Your task to perform on an android device: toggle location history Image 0: 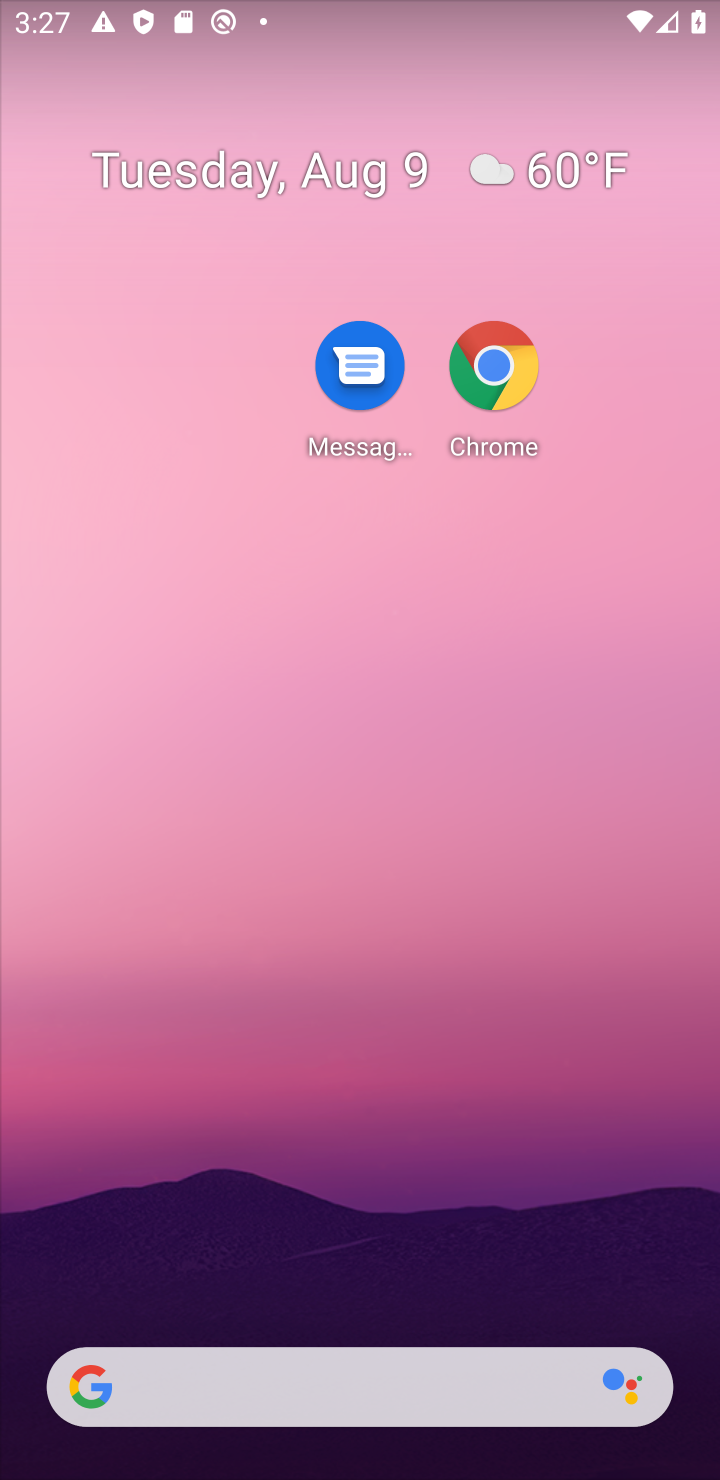
Step 0: drag from (458, 1305) to (468, 480)
Your task to perform on an android device: toggle location history Image 1: 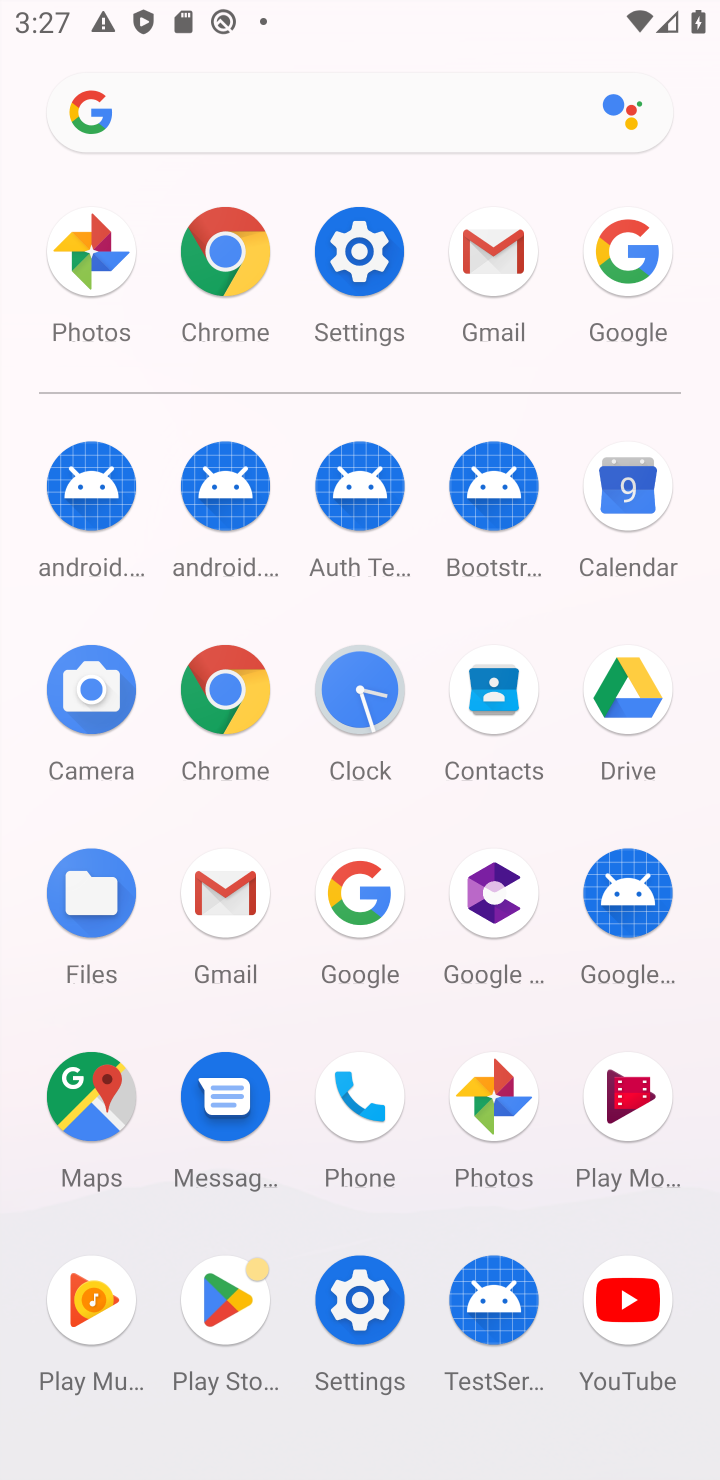
Step 1: click (359, 269)
Your task to perform on an android device: toggle location history Image 2: 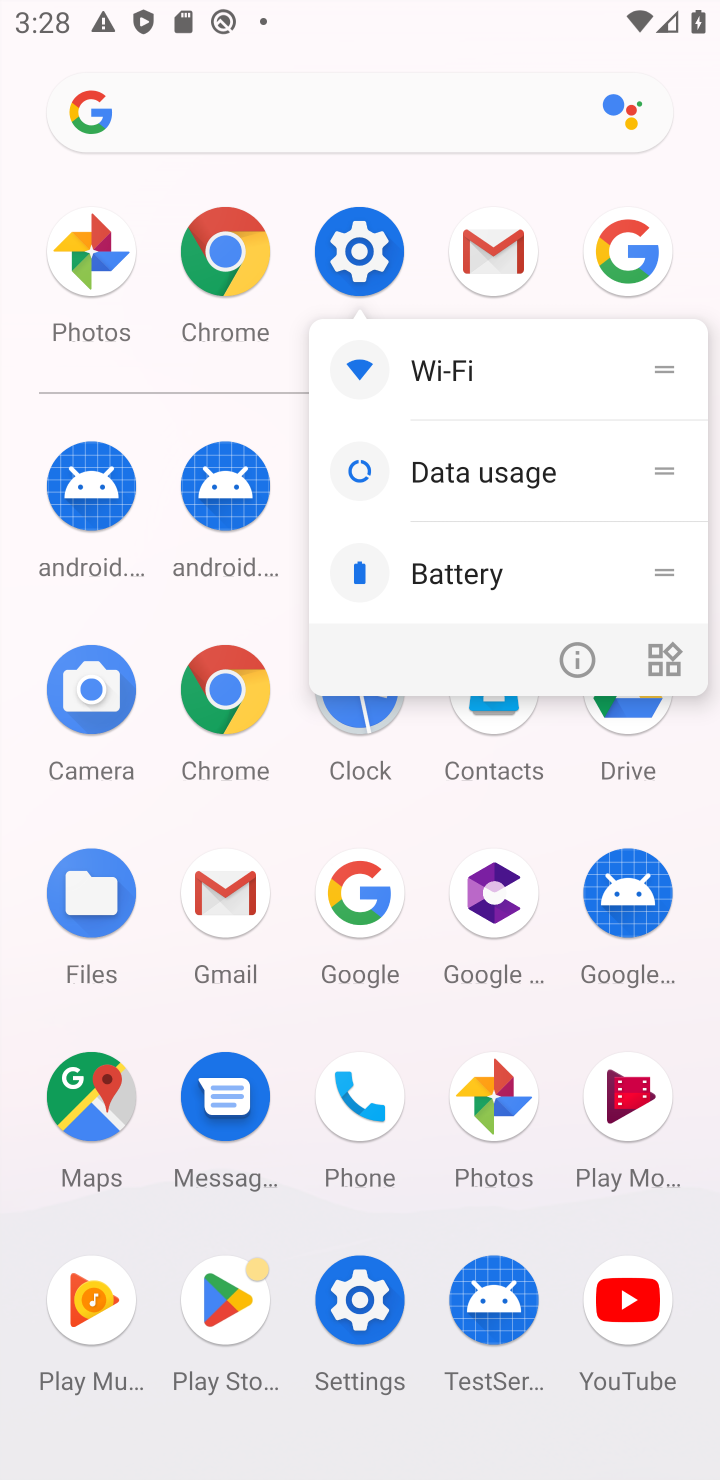
Step 2: click (359, 269)
Your task to perform on an android device: toggle location history Image 3: 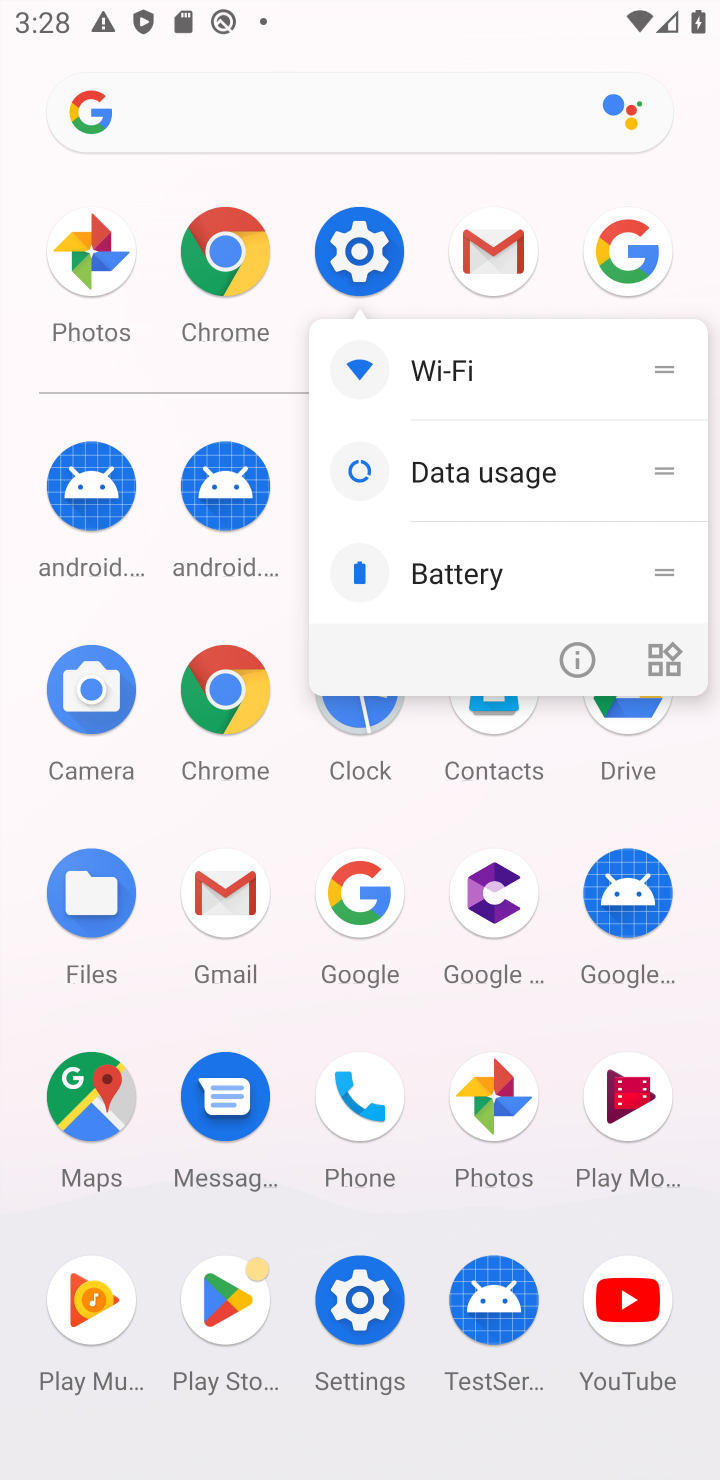
Step 3: click (359, 234)
Your task to perform on an android device: toggle location history Image 4: 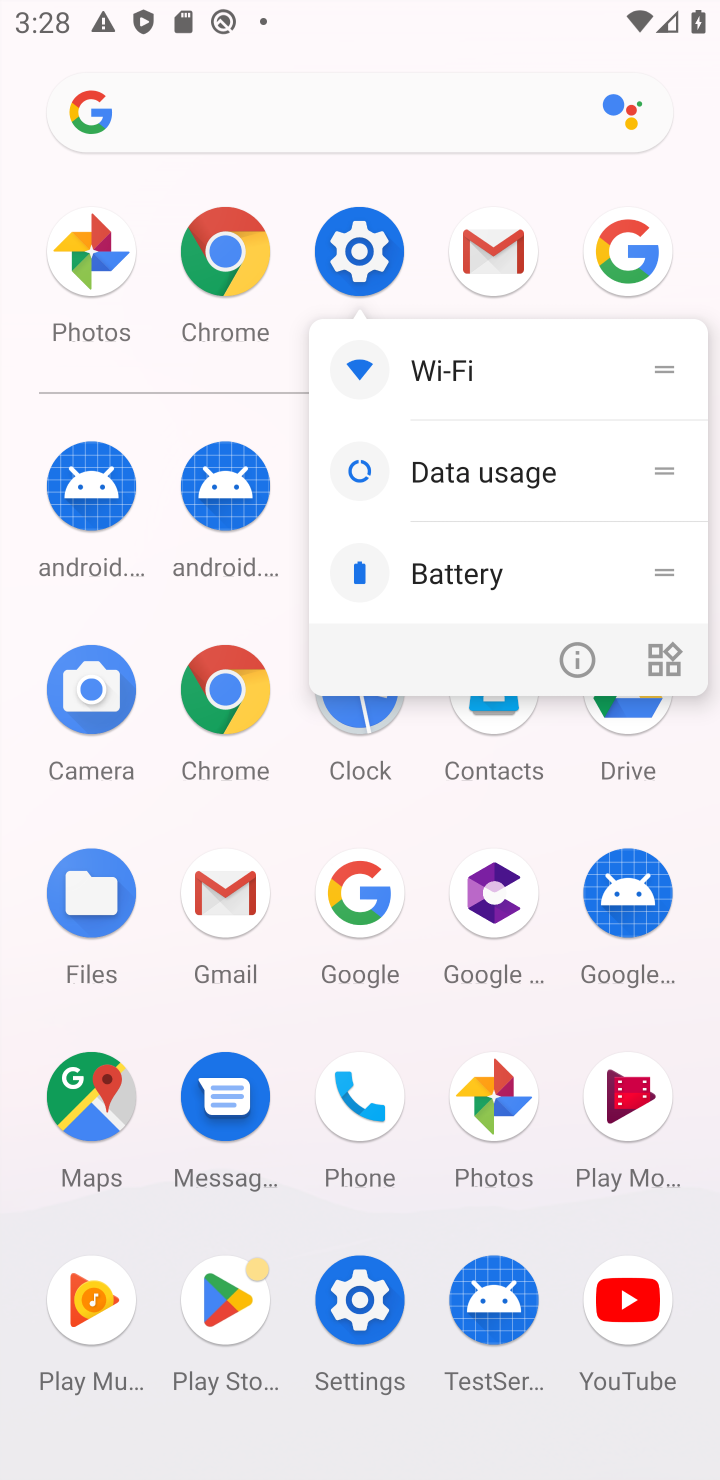
Step 4: click (359, 234)
Your task to perform on an android device: toggle location history Image 5: 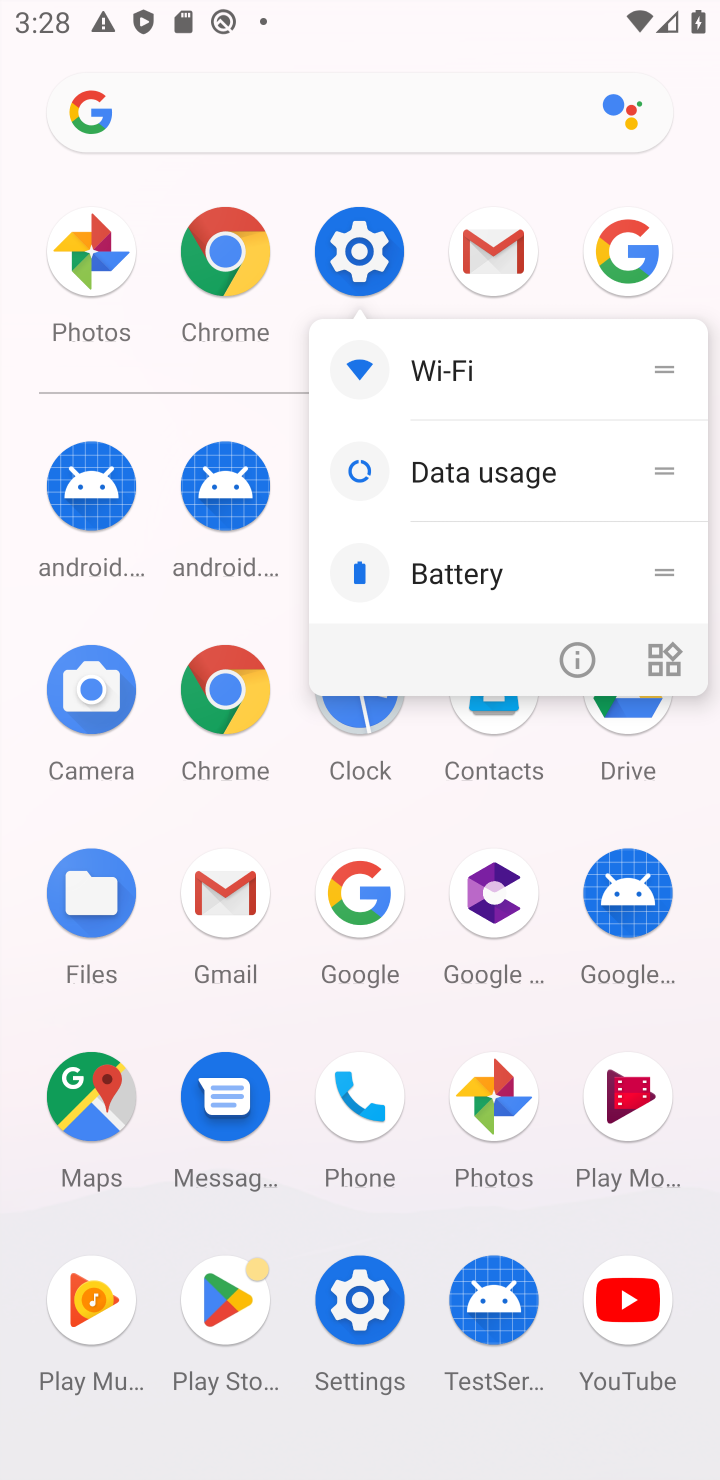
Step 5: click (359, 234)
Your task to perform on an android device: toggle location history Image 6: 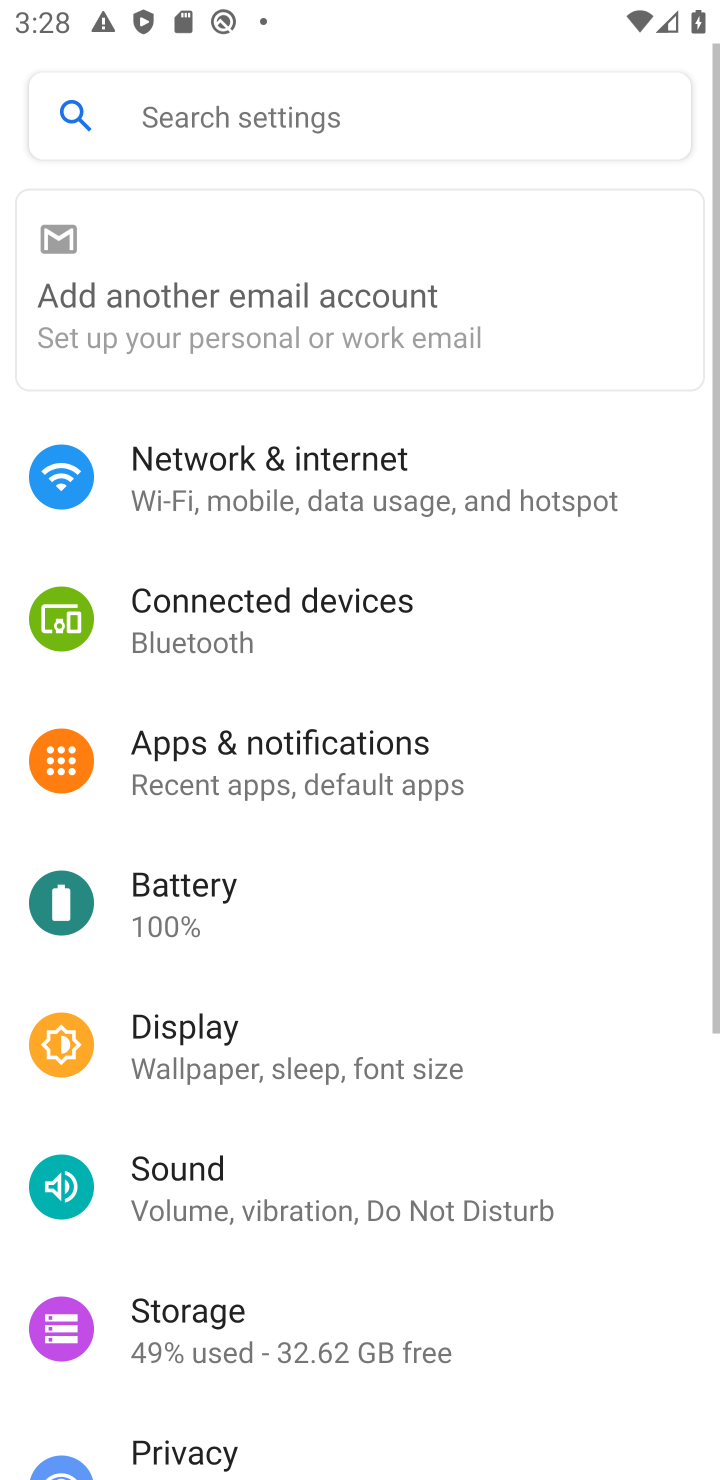
Step 6: click (359, 234)
Your task to perform on an android device: toggle location history Image 7: 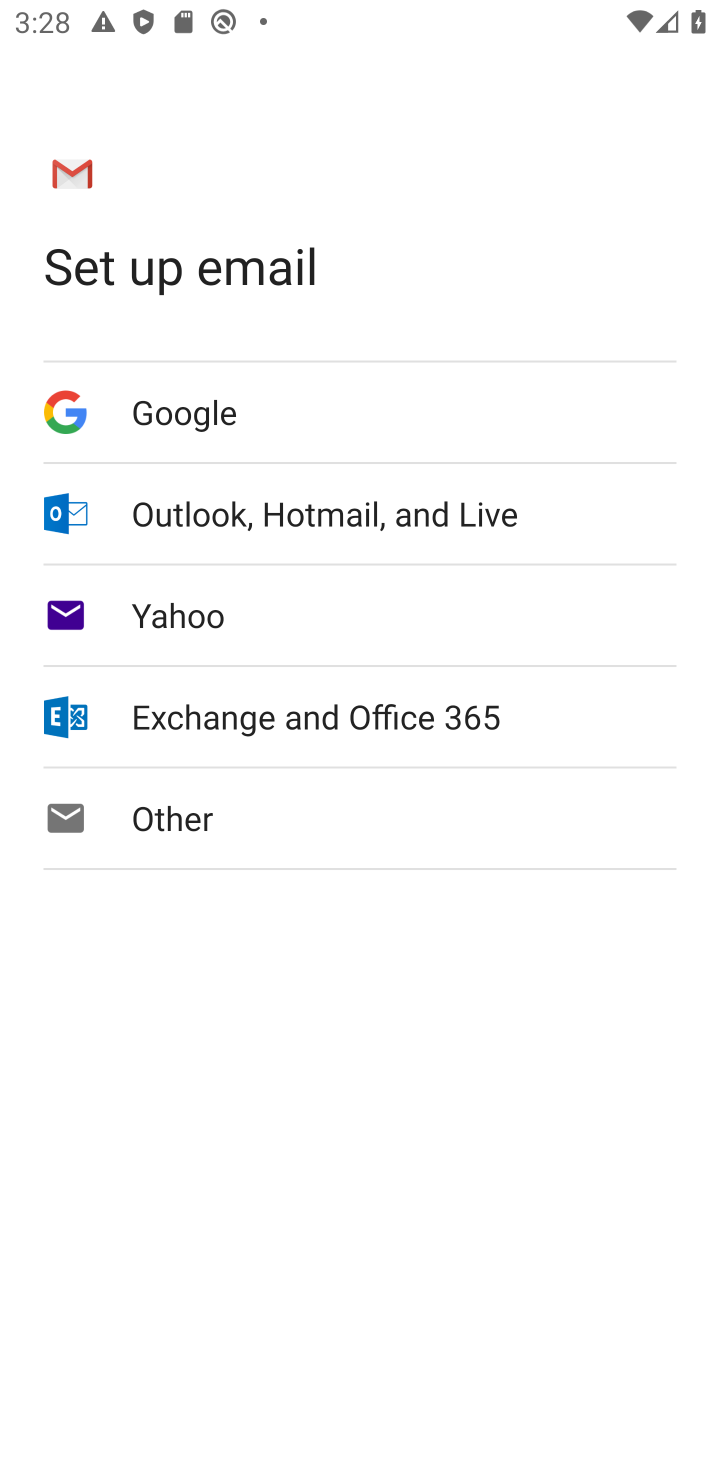
Step 7: press back button
Your task to perform on an android device: toggle location history Image 8: 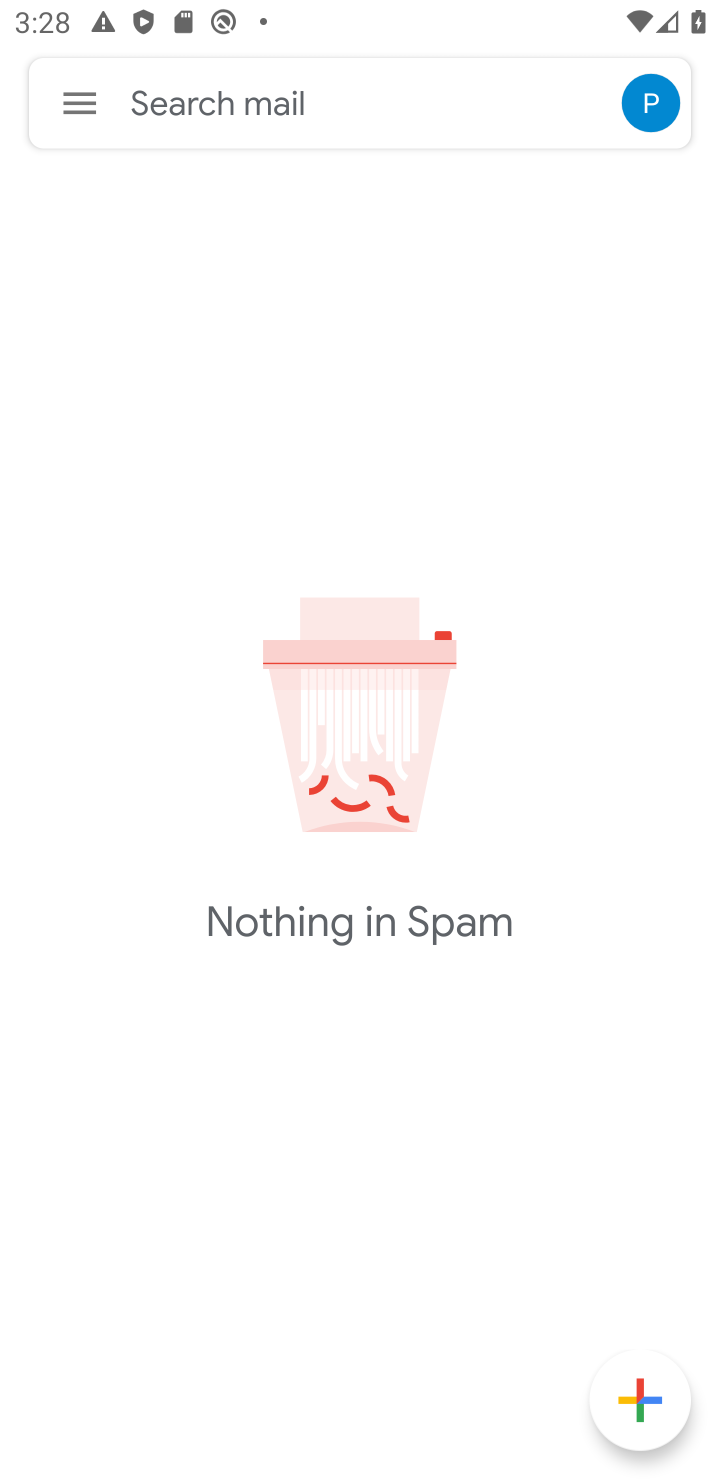
Step 8: click (70, 85)
Your task to perform on an android device: toggle location history Image 9: 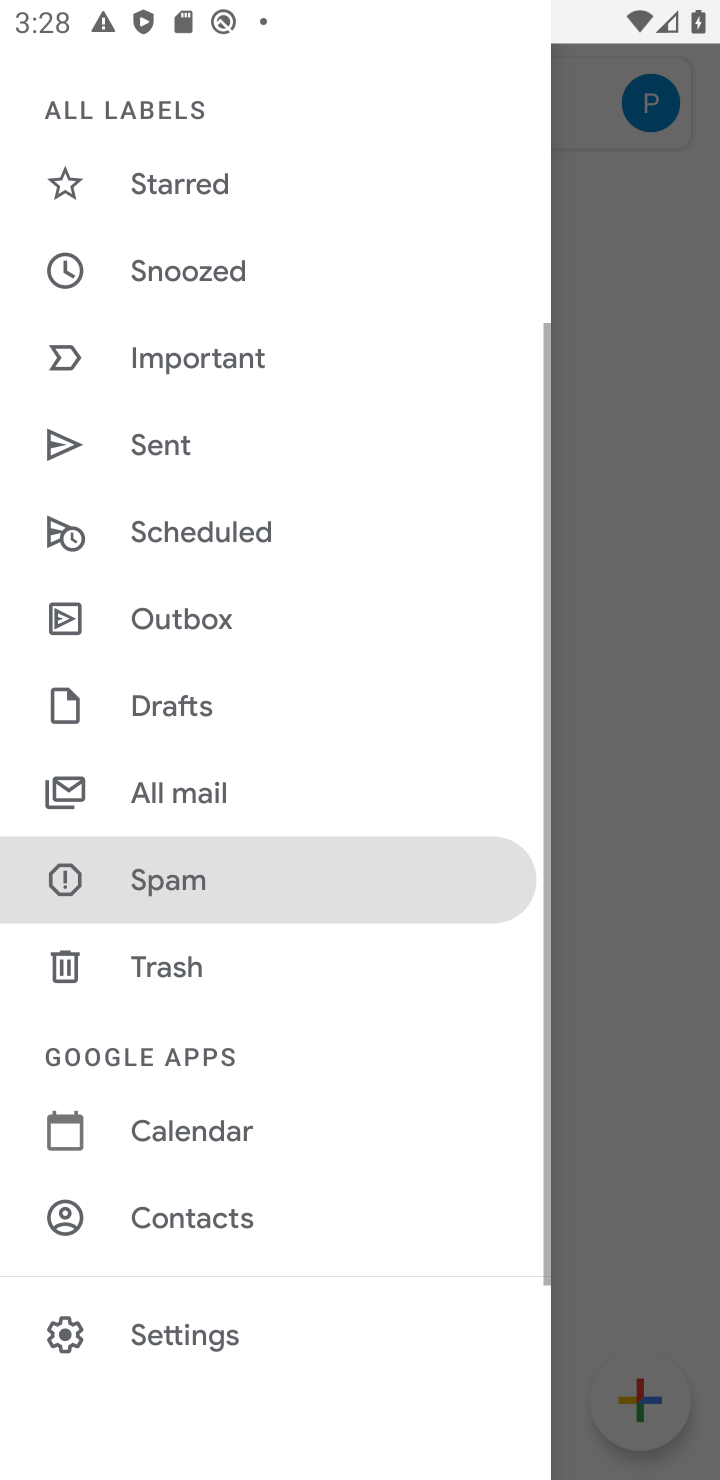
Step 9: press home button
Your task to perform on an android device: toggle location history Image 10: 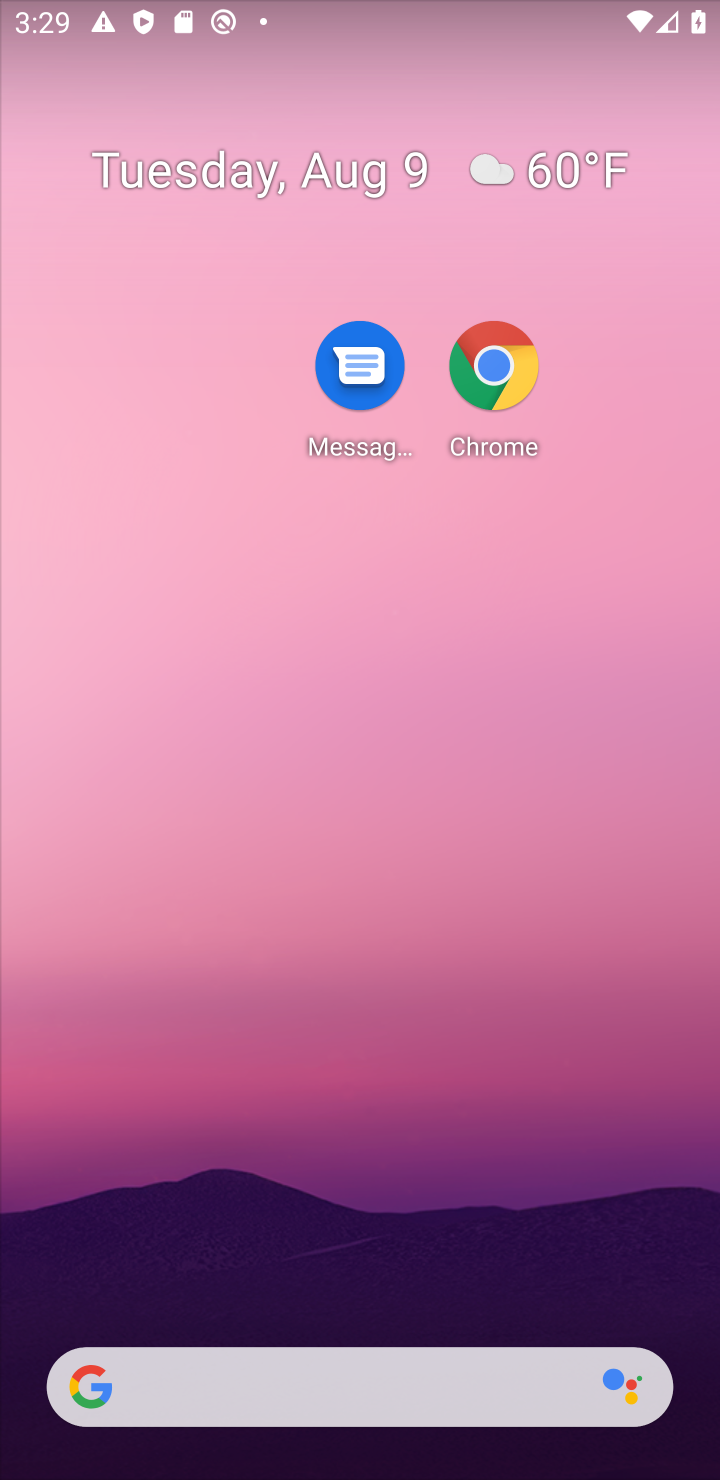
Step 10: drag from (289, 1184) to (374, 390)
Your task to perform on an android device: toggle location history Image 11: 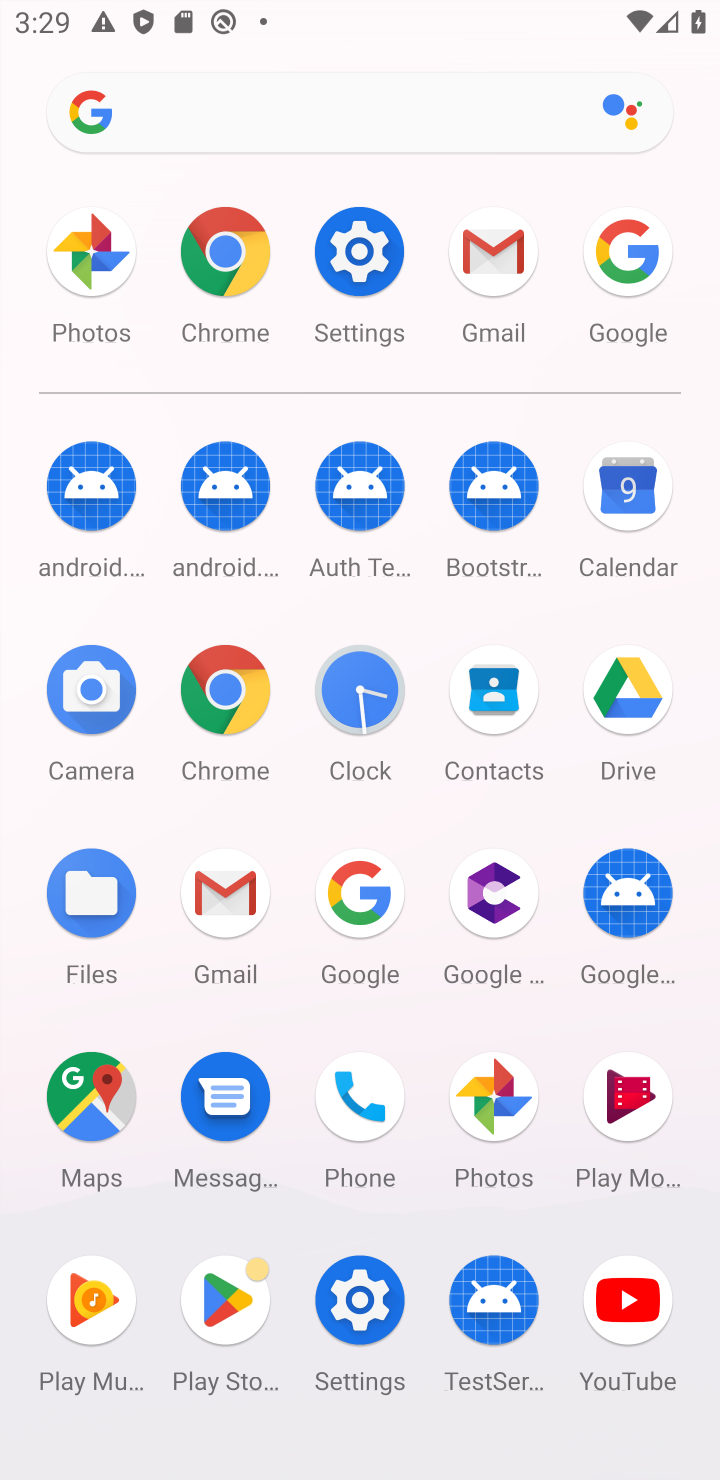
Step 11: click (384, 240)
Your task to perform on an android device: toggle location history Image 12: 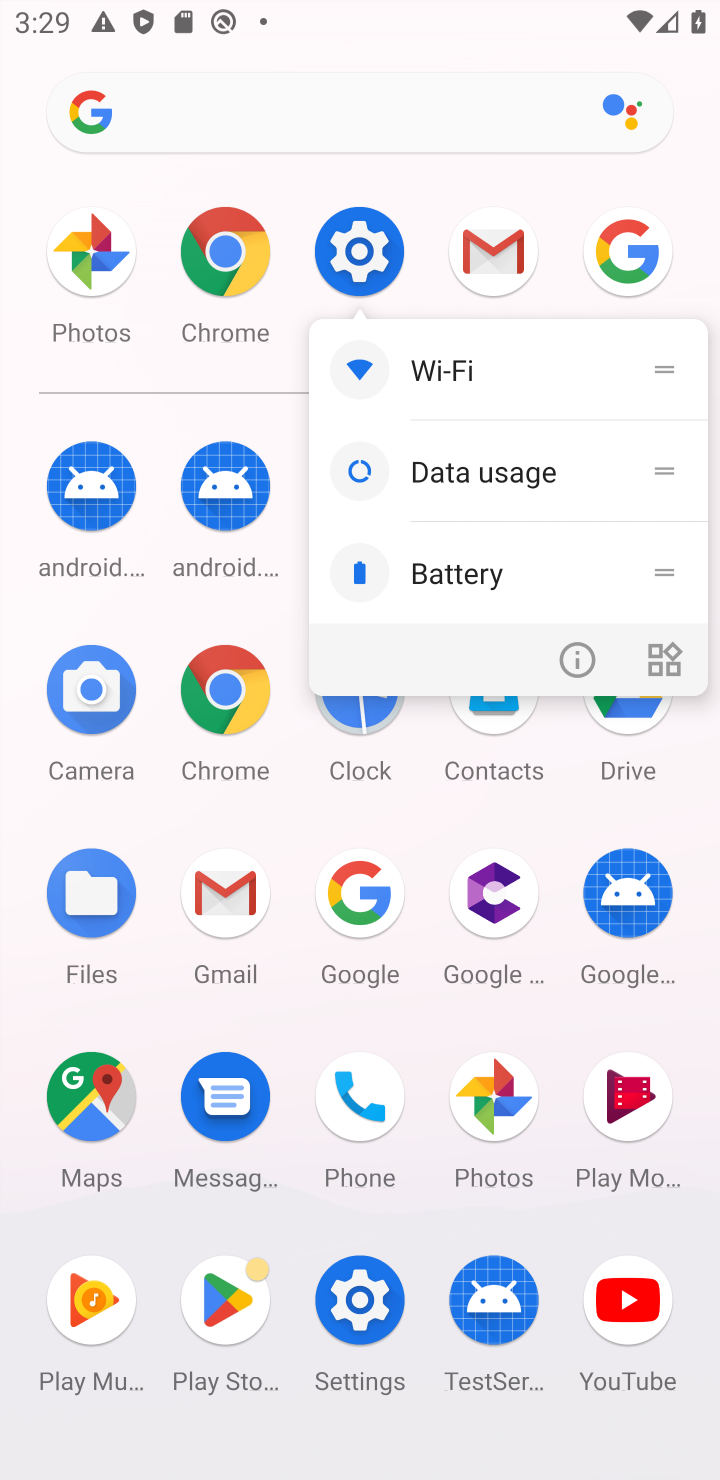
Step 12: click (343, 228)
Your task to perform on an android device: toggle location history Image 13: 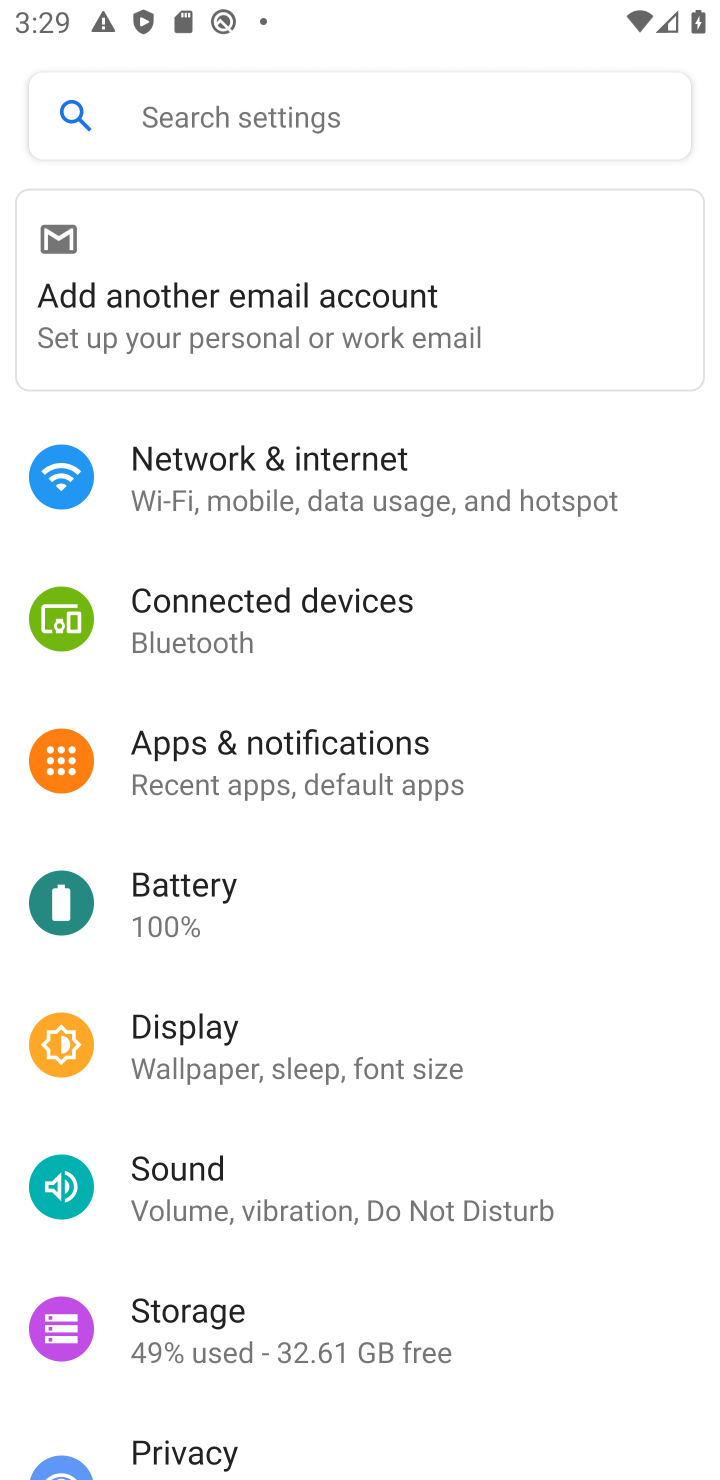
Step 13: drag from (300, 1252) to (438, 458)
Your task to perform on an android device: toggle location history Image 14: 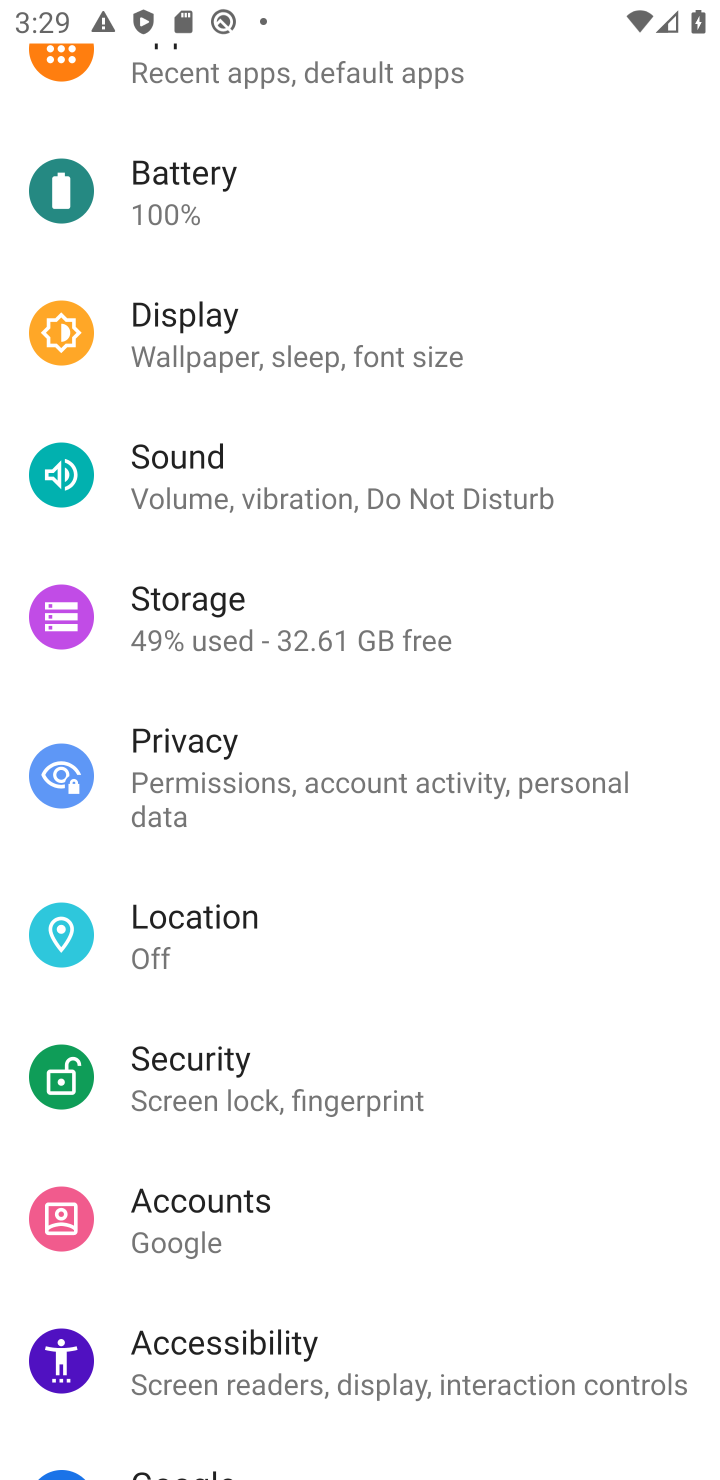
Step 14: click (235, 944)
Your task to perform on an android device: toggle location history Image 15: 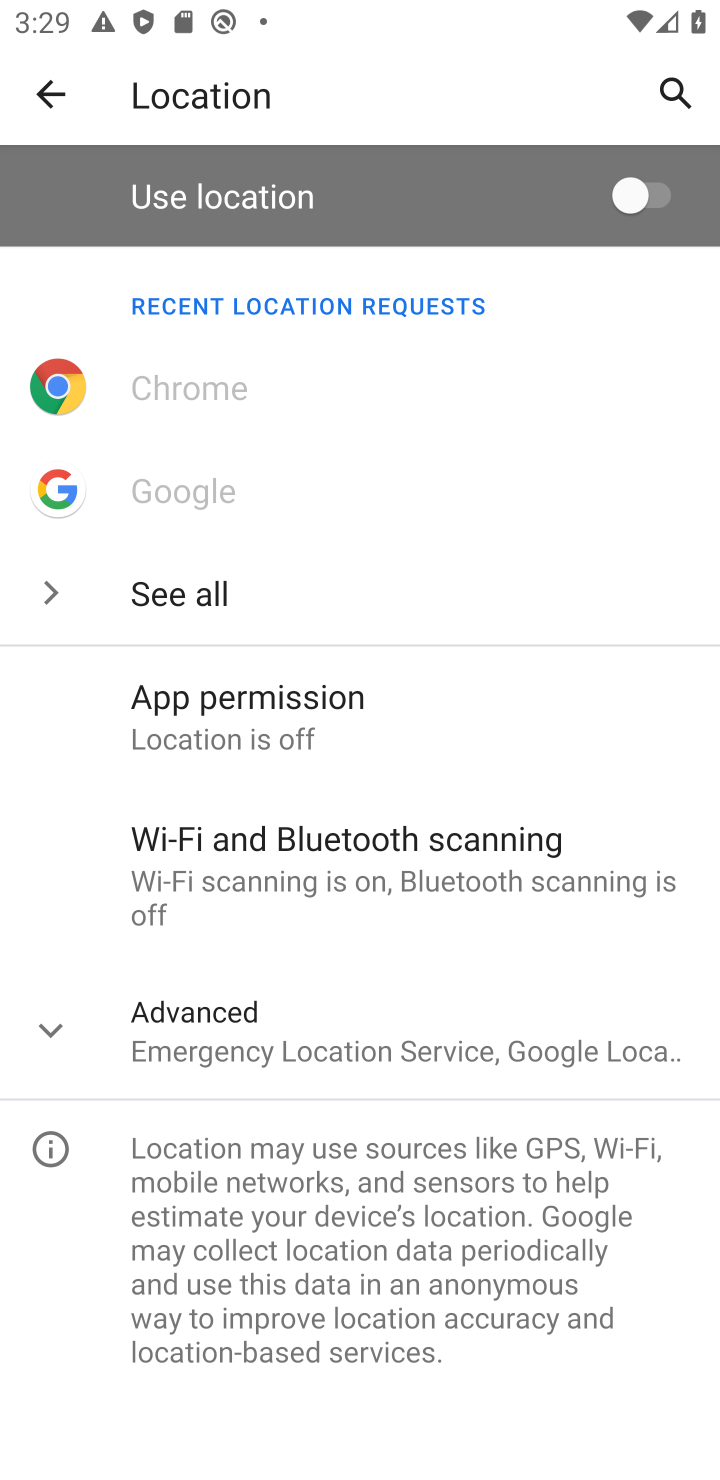
Step 15: click (278, 1015)
Your task to perform on an android device: toggle location history Image 16: 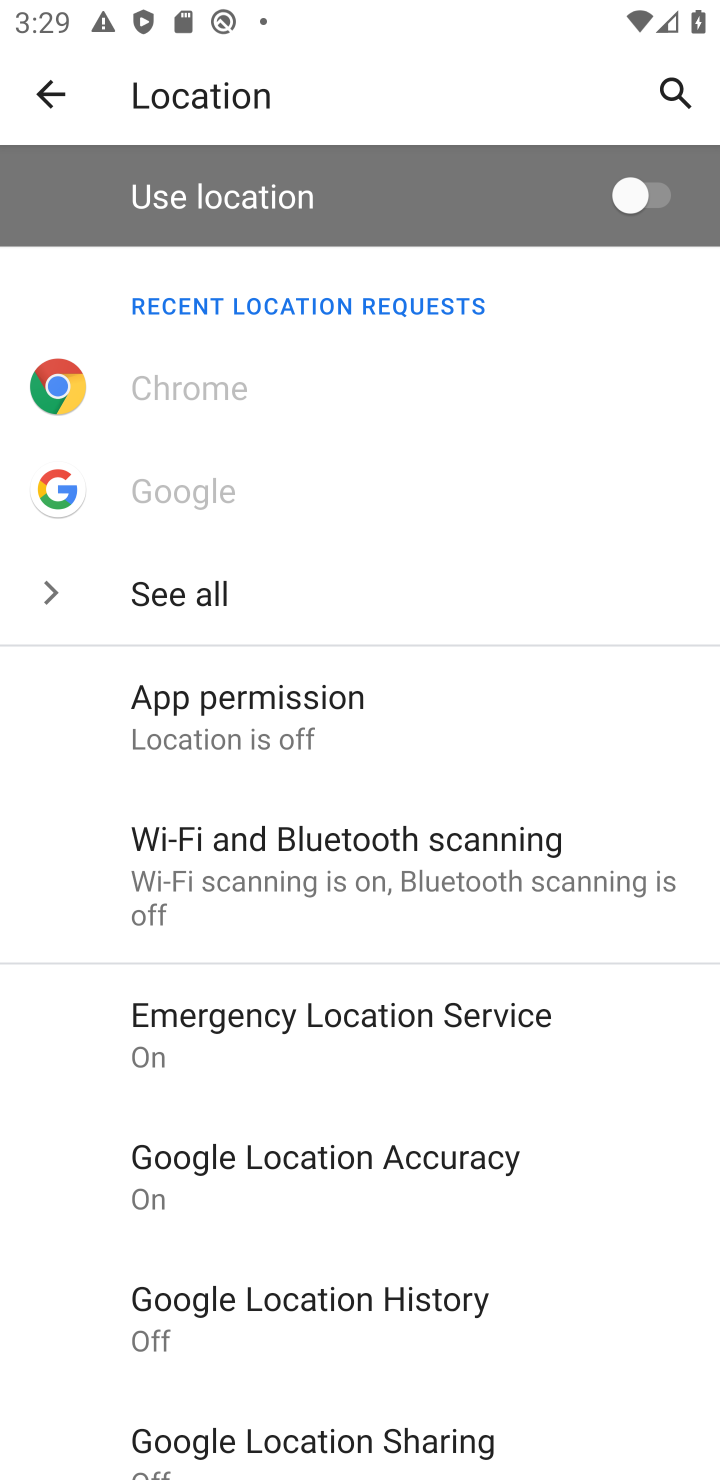
Step 16: click (386, 1319)
Your task to perform on an android device: toggle location history Image 17: 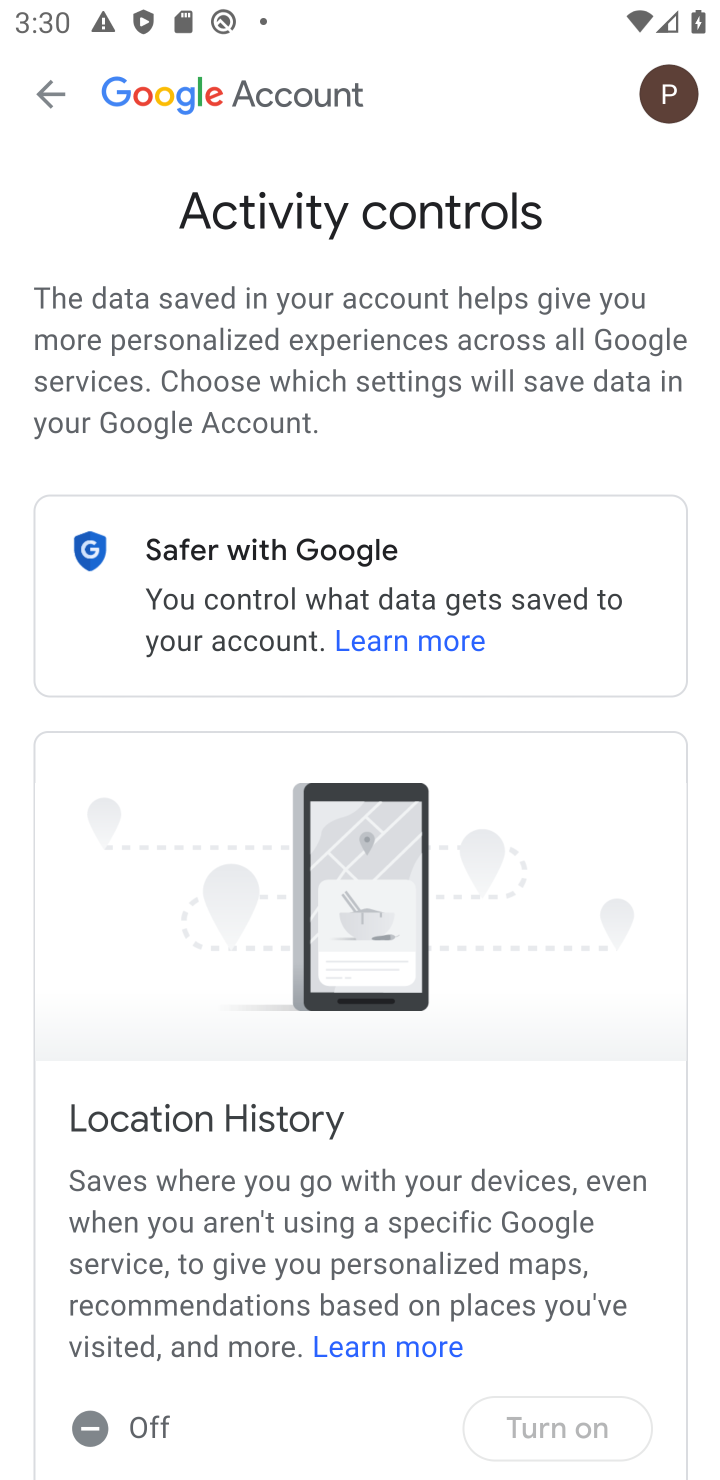
Step 17: click (534, 1418)
Your task to perform on an android device: toggle location history Image 18: 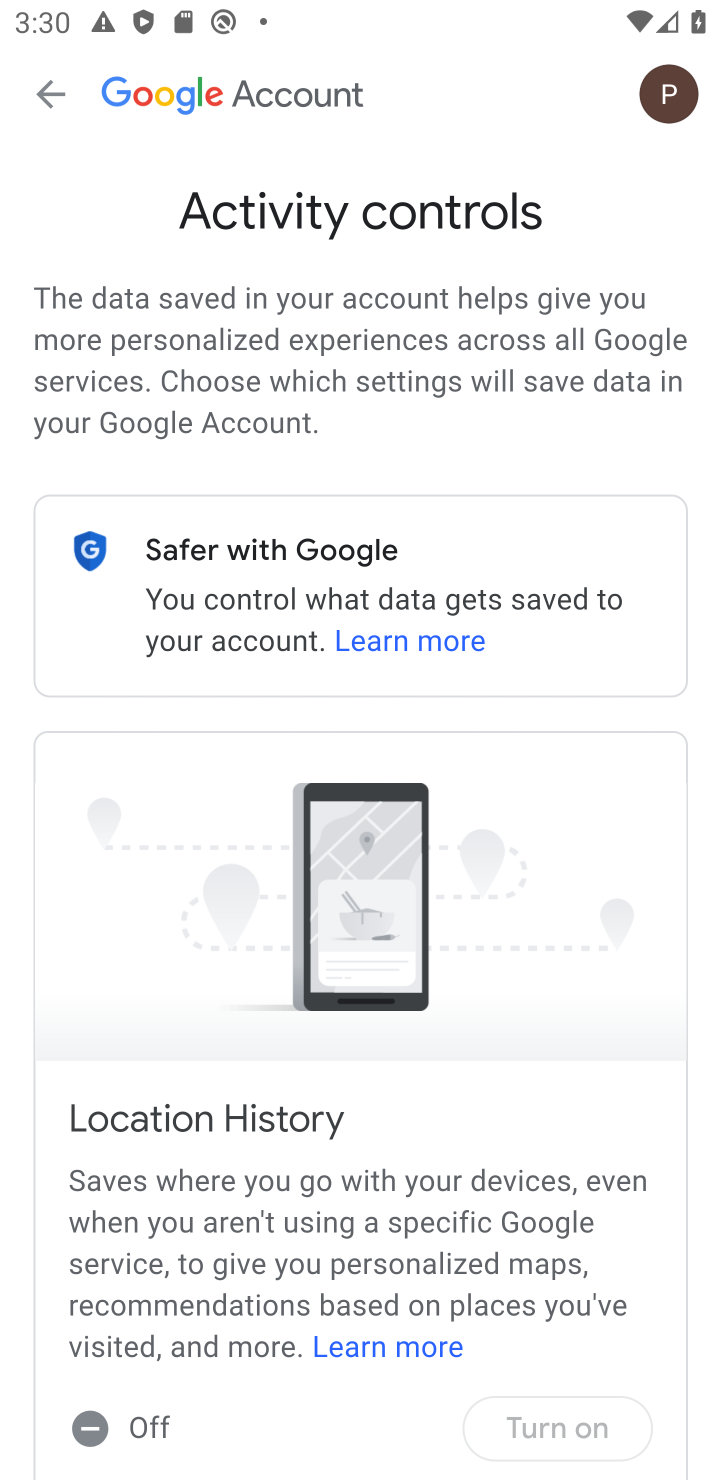
Step 18: click (146, 1411)
Your task to perform on an android device: toggle location history Image 19: 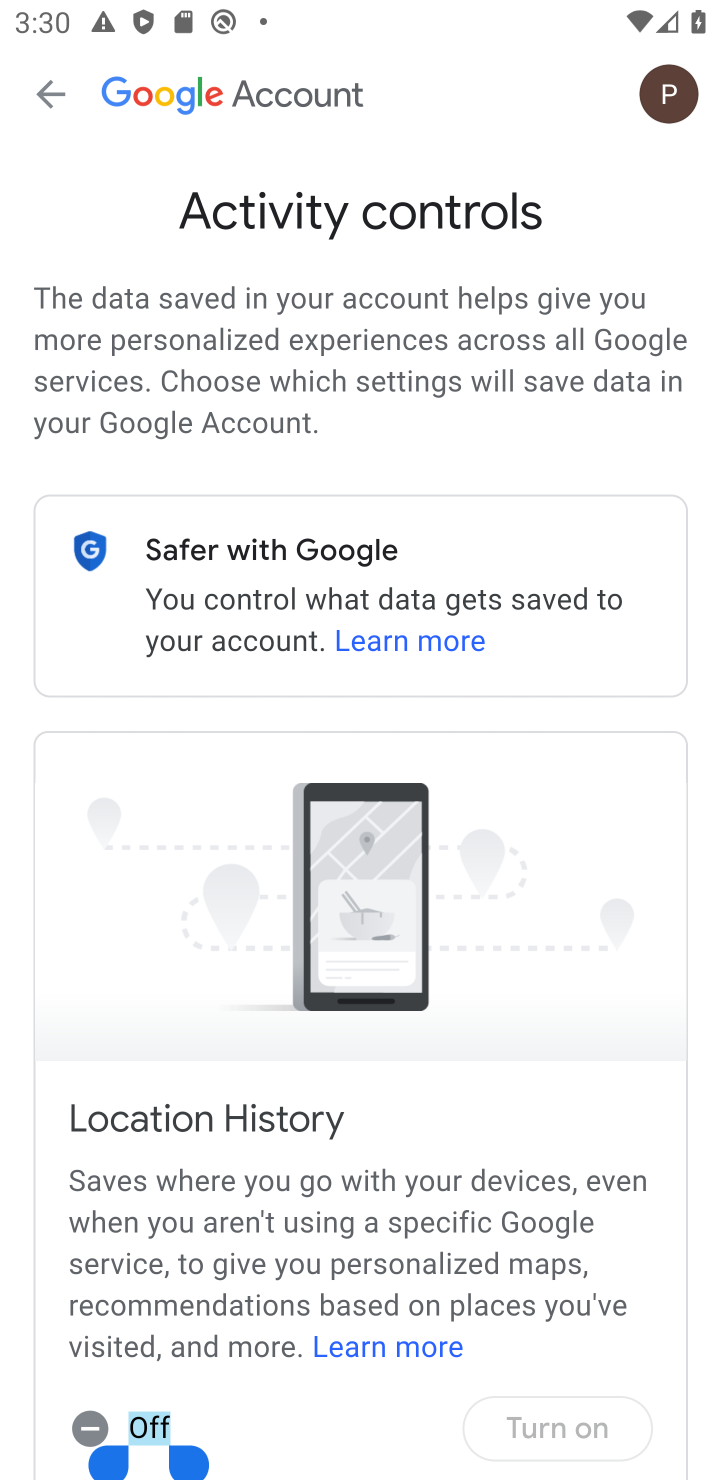
Step 19: click (146, 1411)
Your task to perform on an android device: toggle location history Image 20: 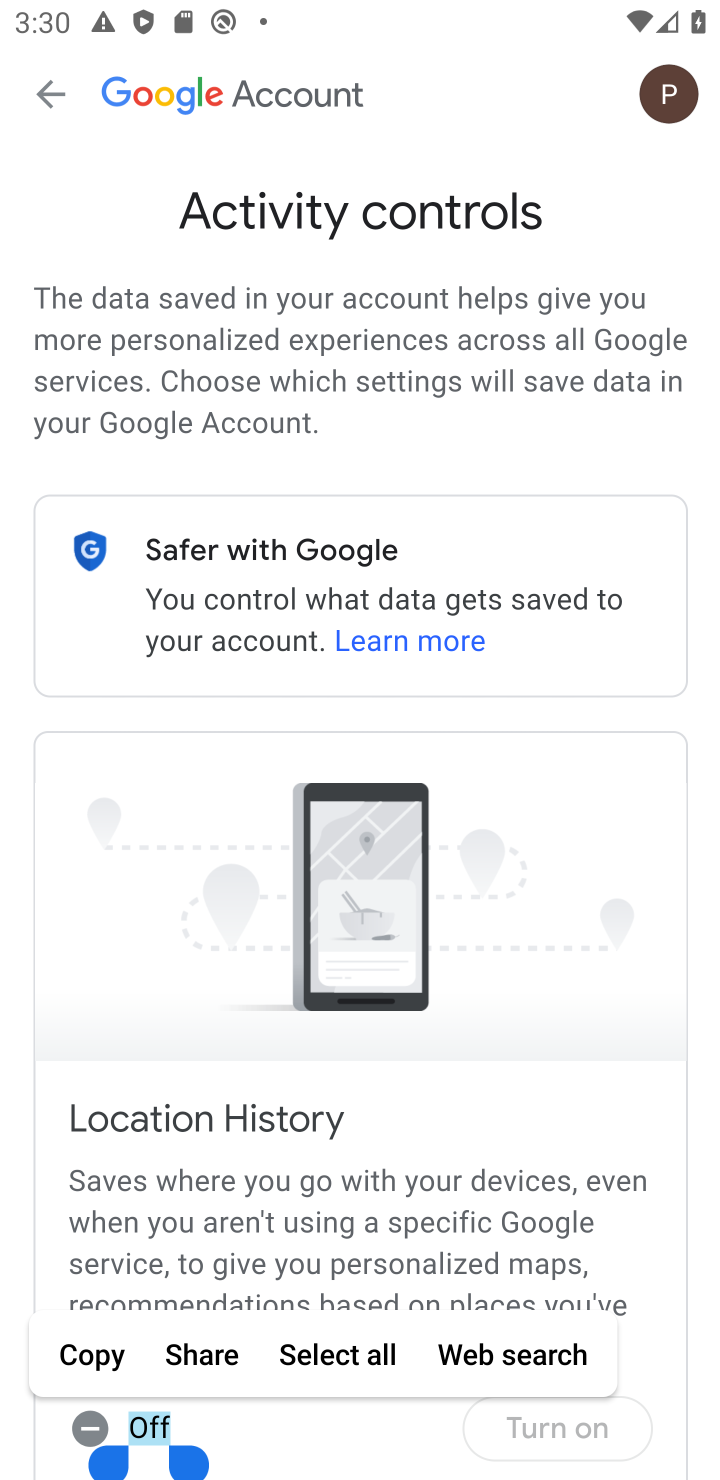
Step 20: click (146, 1411)
Your task to perform on an android device: toggle location history Image 21: 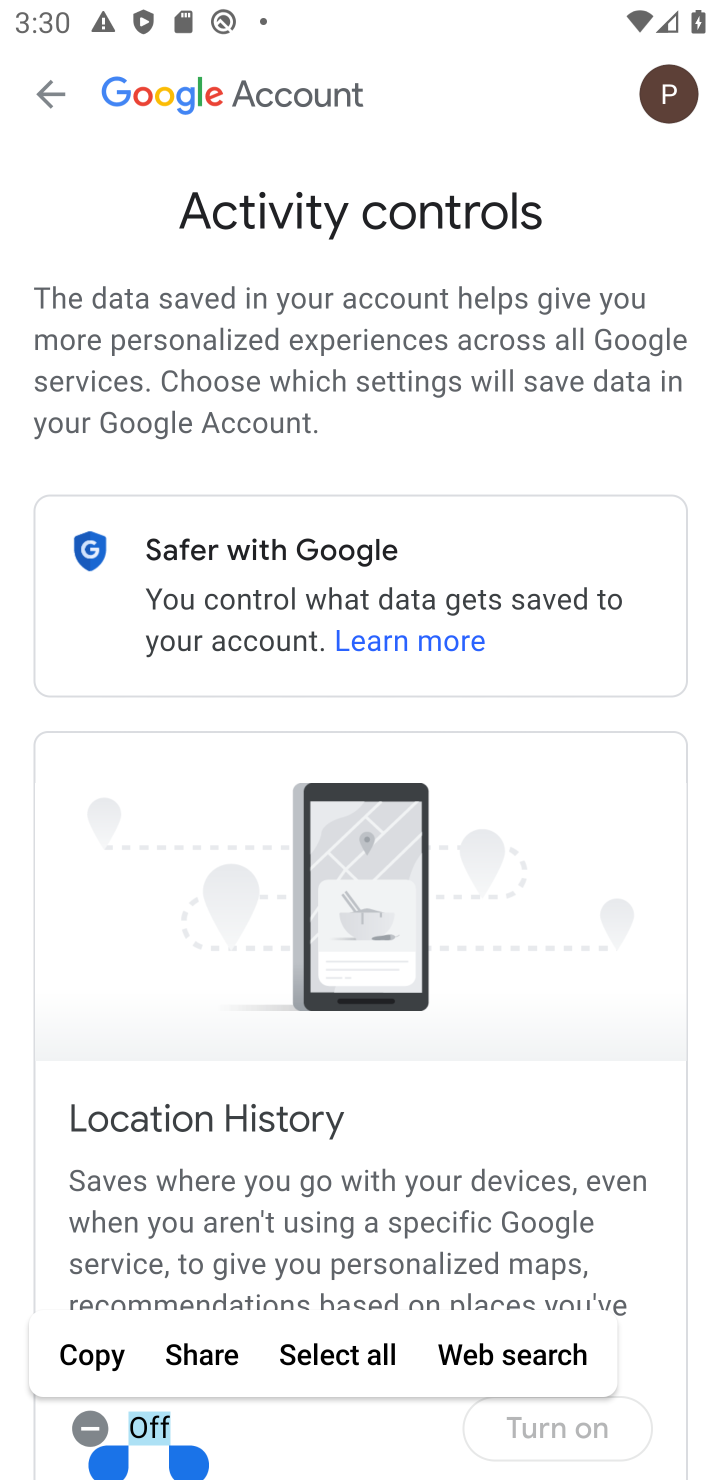
Step 21: drag from (502, 1131) to (537, 447)
Your task to perform on an android device: toggle location history Image 22: 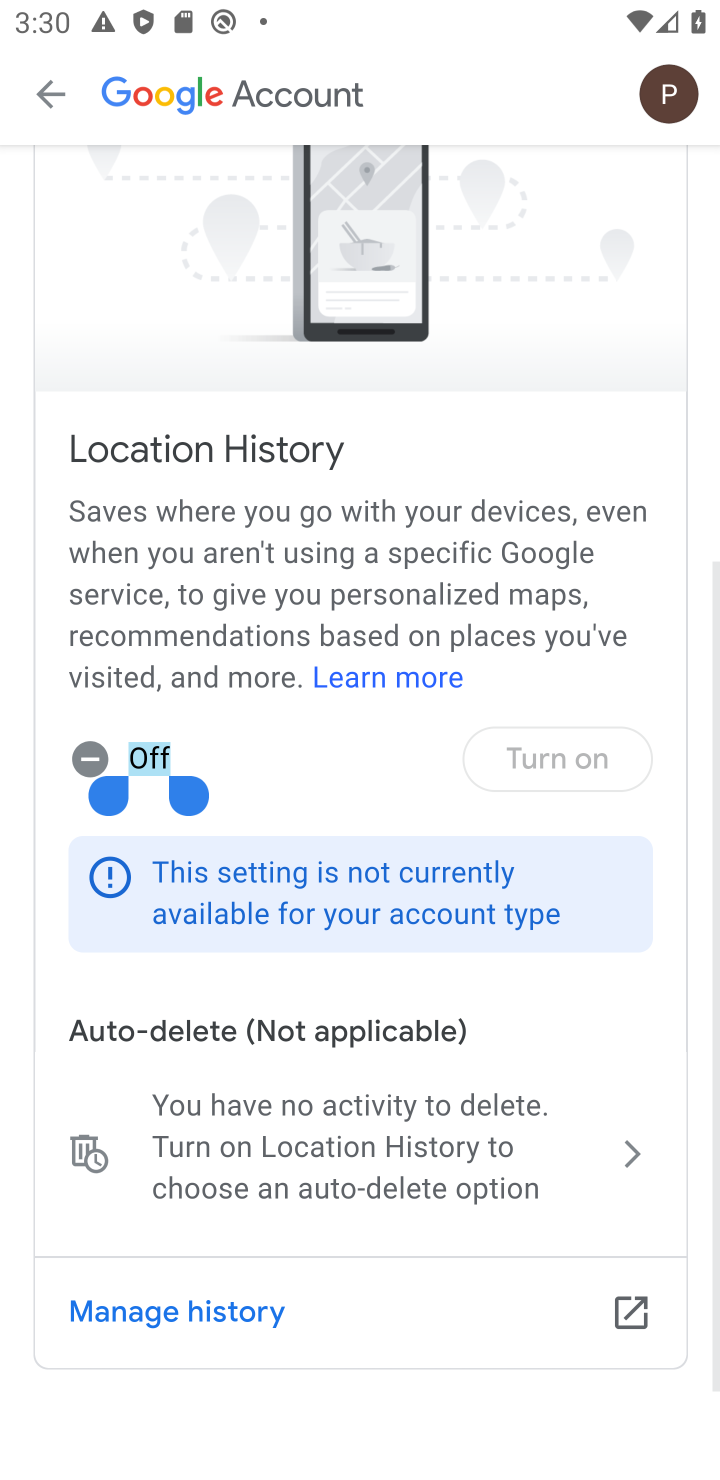
Step 22: click (152, 1192)
Your task to perform on an android device: toggle location history Image 23: 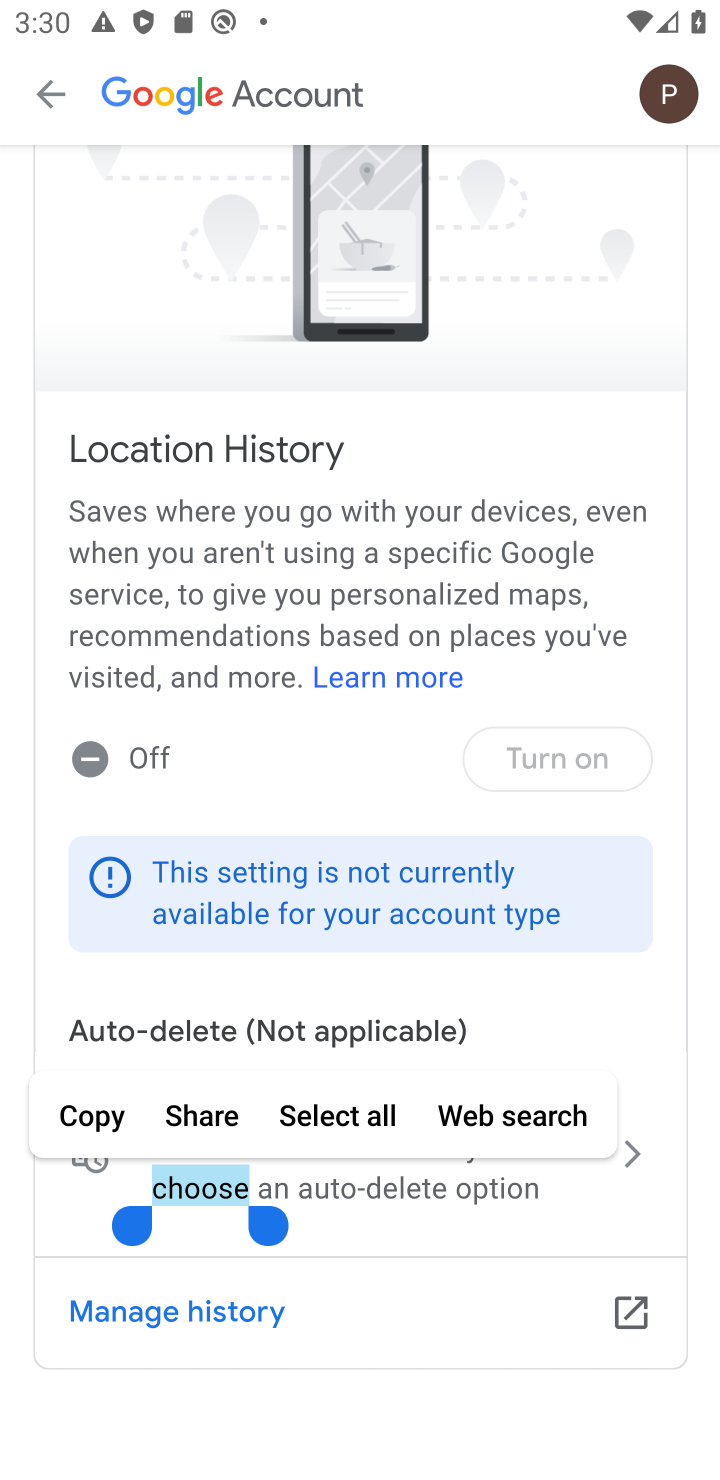
Step 23: task complete